Your task to perform on an android device: choose inbox layout in the gmail app Image 0: 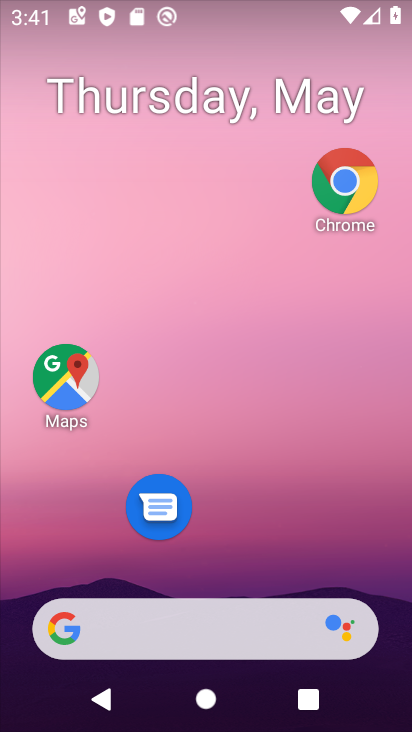
Step 0: drag from (289, 557) to (275, 97)
Your task to perform on an android device: choose inbox layout in the gmail app Image 1: 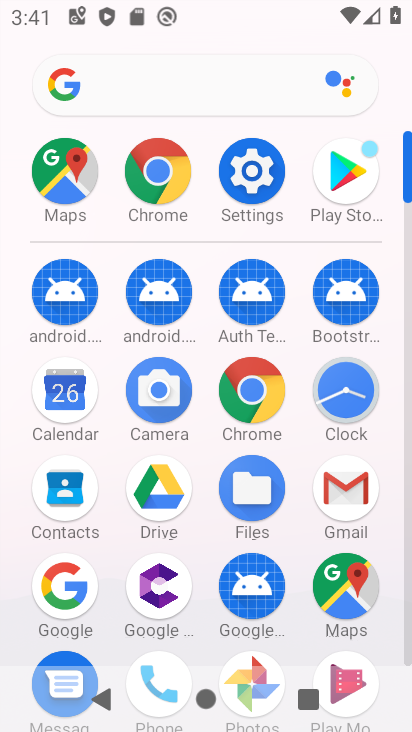
Step 1: click (346, 494)
Your task to perform on an android device: choose inbox layout in the gmail app Image 2: 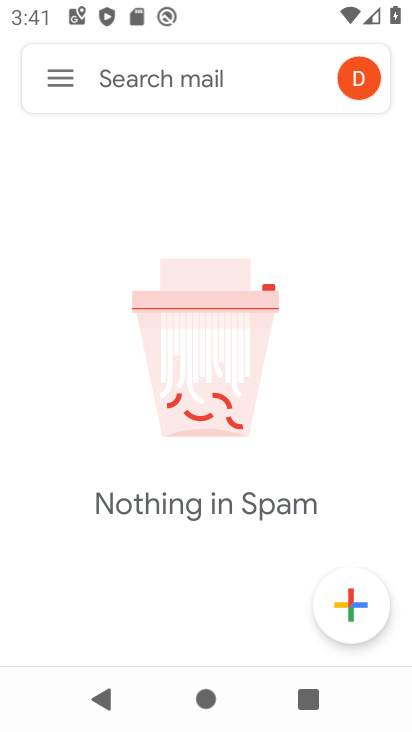
Step 2: click (61, 82)
Your task to perform on an android device: choose inbox layout in the gmail app Image 3: 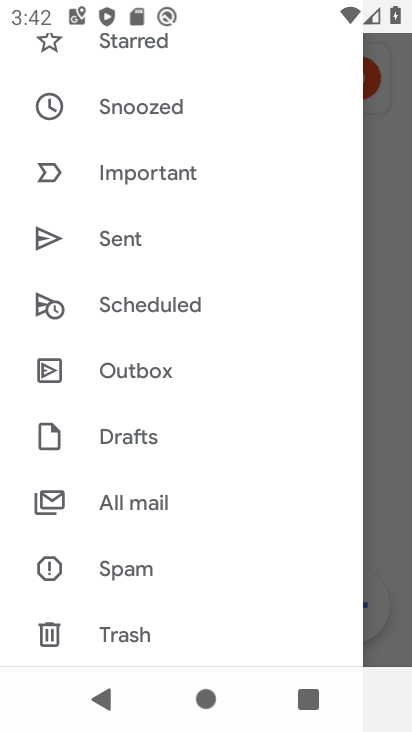
Step 3: drag from (217, 156) to (166, 590)
Your task to perform on an android device: choose inbox layout in the gmail app Image 4: 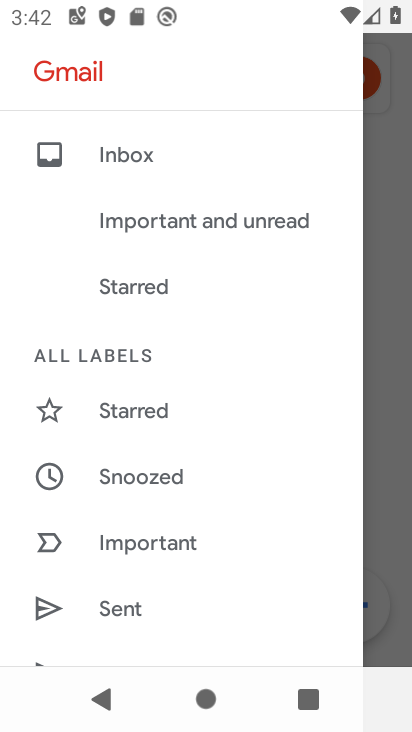
Step 4: drag from (246, 637) to (283, 264)
Your task to perform on an android device: choose inbox layout in the gmail app Image 5: 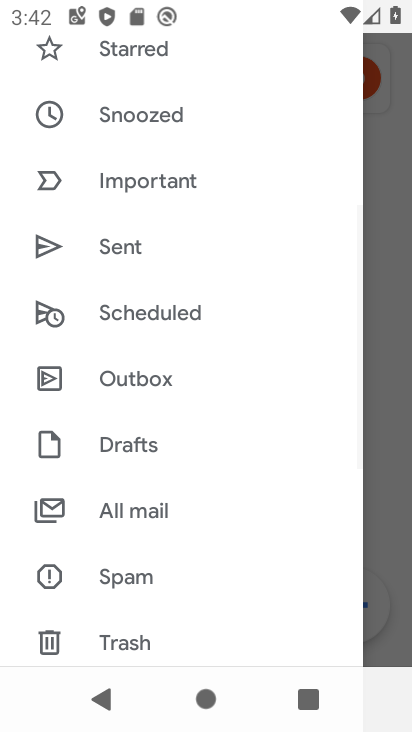
Step 5: drag from (220, 538) to (292, 173)
Your task to perform on an android device: choose inbox layout in the gmail app Image 6: 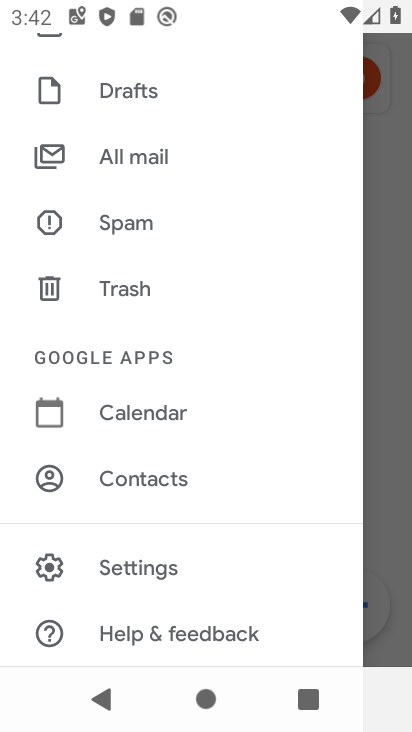
Step 6: click (168, 570)
Your task to perform on an android device: choose inbox layout in the gmail app Image 7: 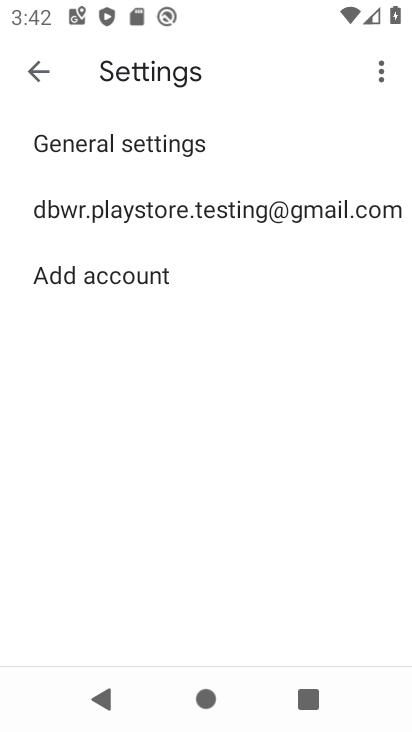
Step 7: click (249, 212)
Your task to perform on an android device: choose inbox layout in the gmail app Image 8: 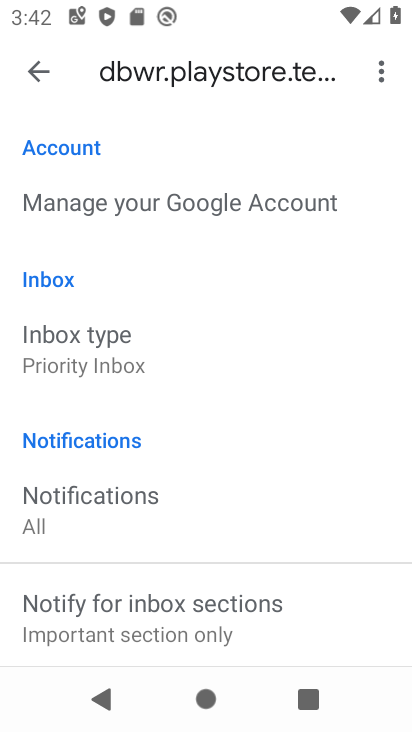
Step 8: click (83, 350)
Your task to perform on an android device: choose inbox layout in the gmail app Image 9: 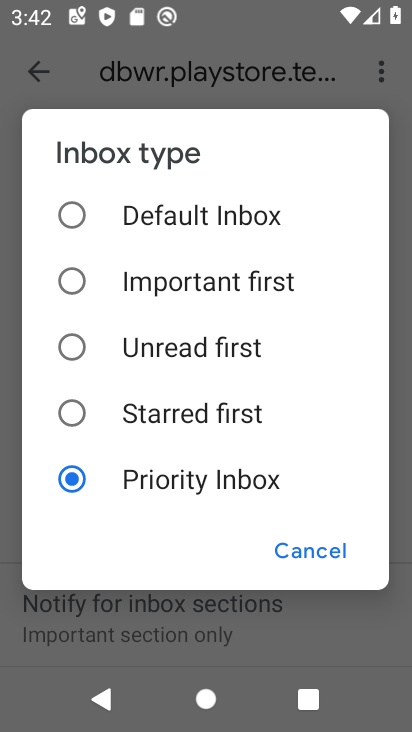
Step 9: click (70, 269)
Your task to perform on an android device: choose inbox layout in the gmail app Image 10: 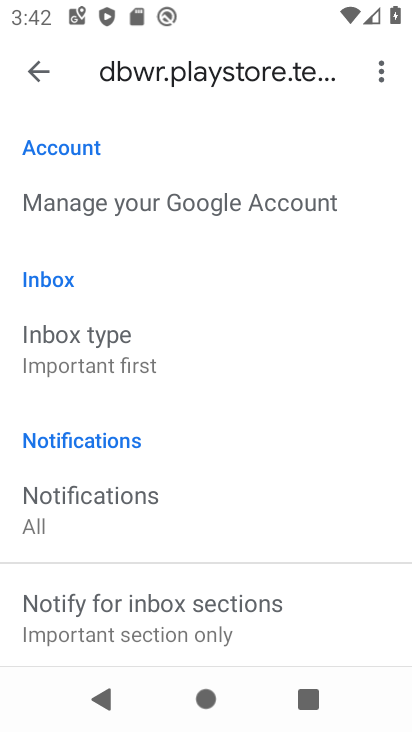
Step 10: task complete